Your task to perform on an android device: Open Reddit.com Image 0: 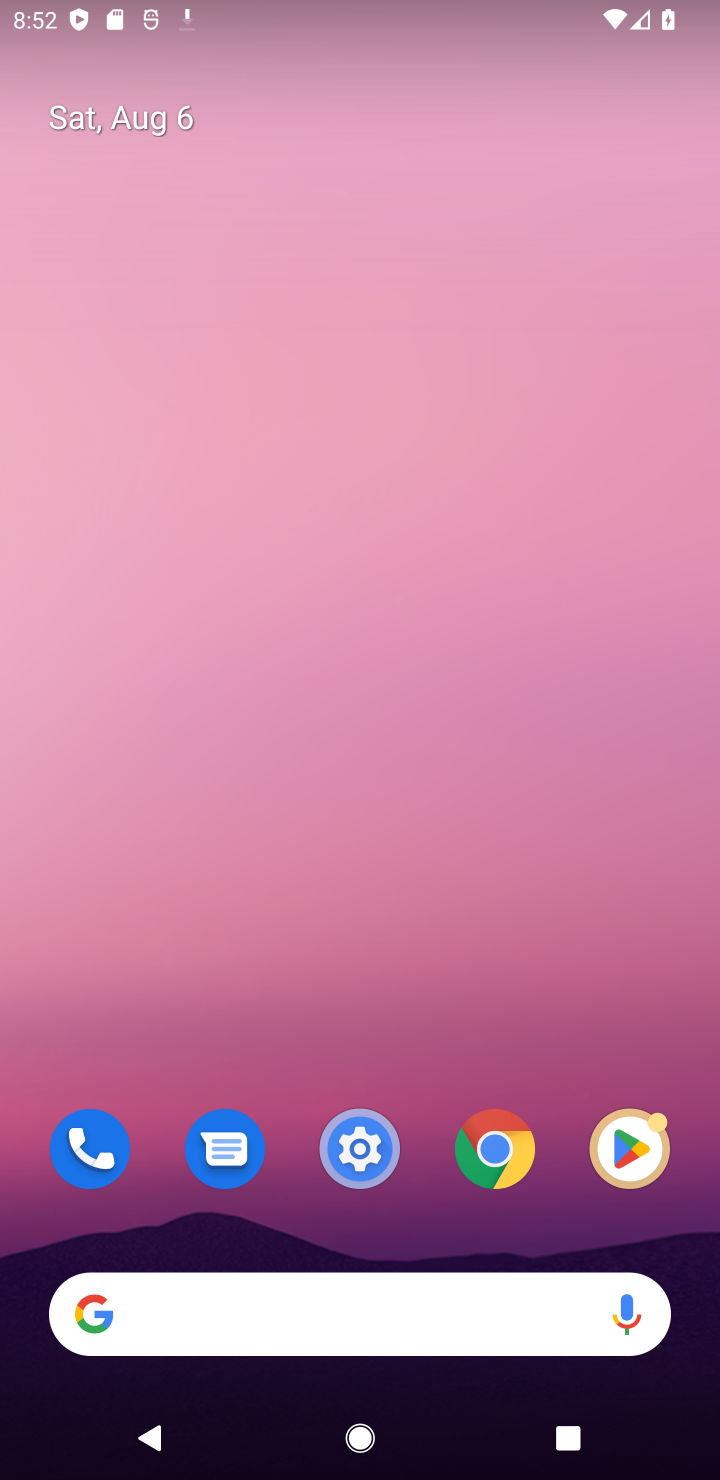
Step 0: click (506, 1164)
Your task to perform on an android device: Open Reddit.com Image 1: 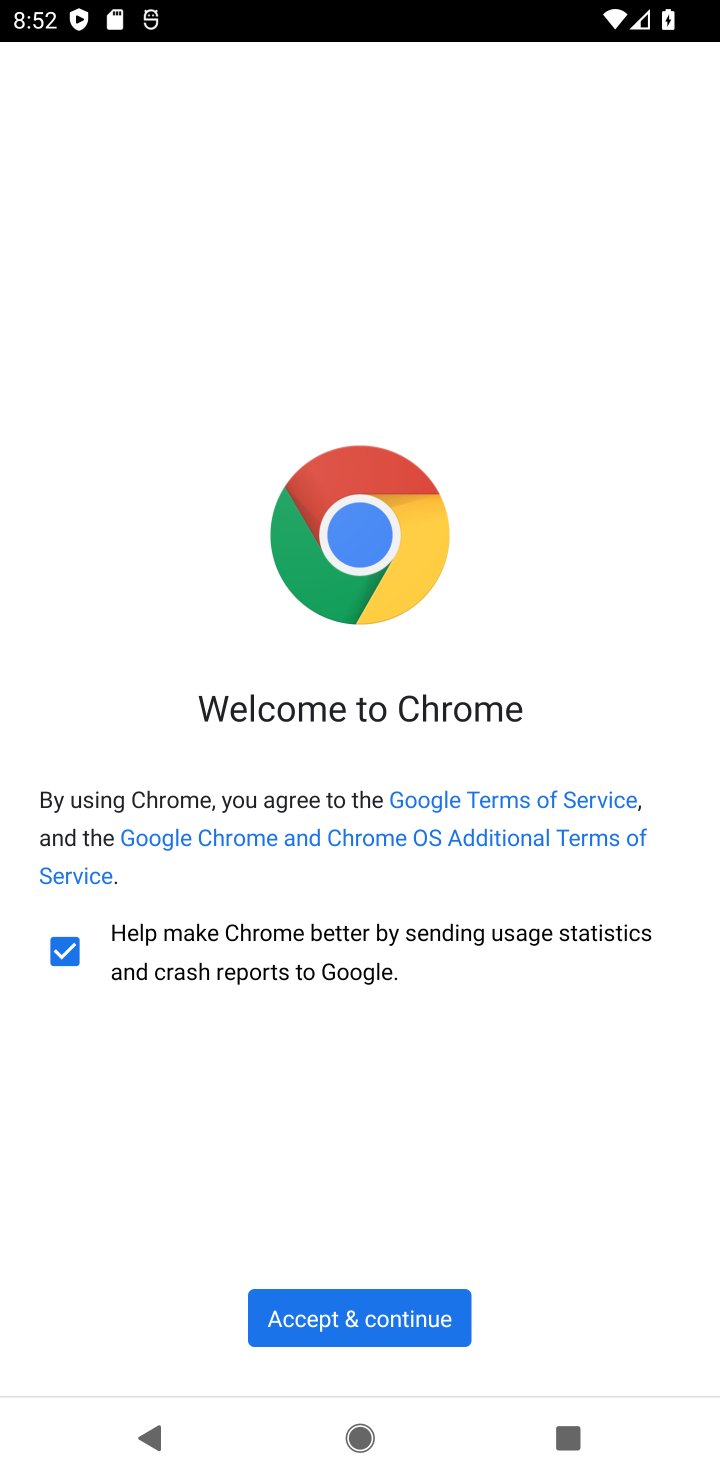
Step 1: click (366, 1329)
Your task to perform on an android device: Open Reddit.com Image 2: 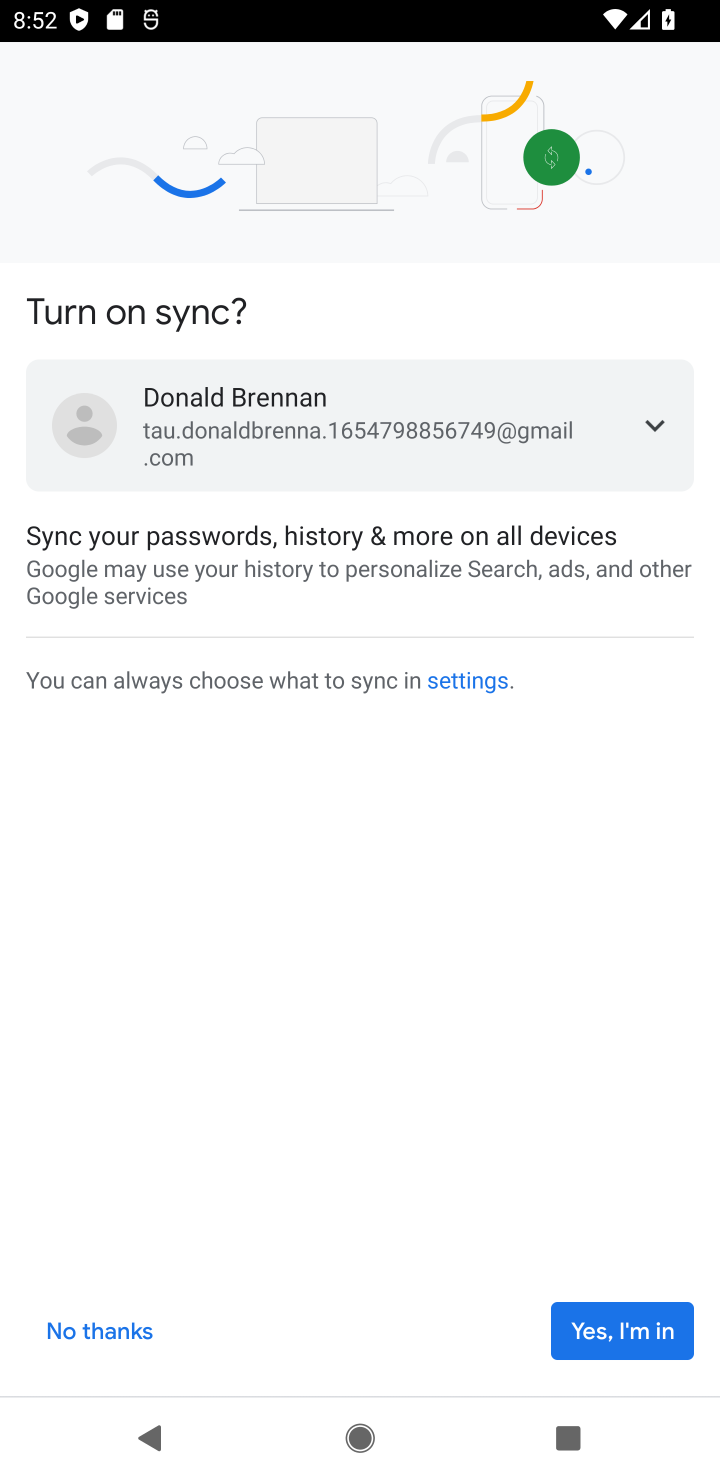
Step 2: click (613, 1319)
Your task to perform on an android device: Open Reddit.com Image 3: 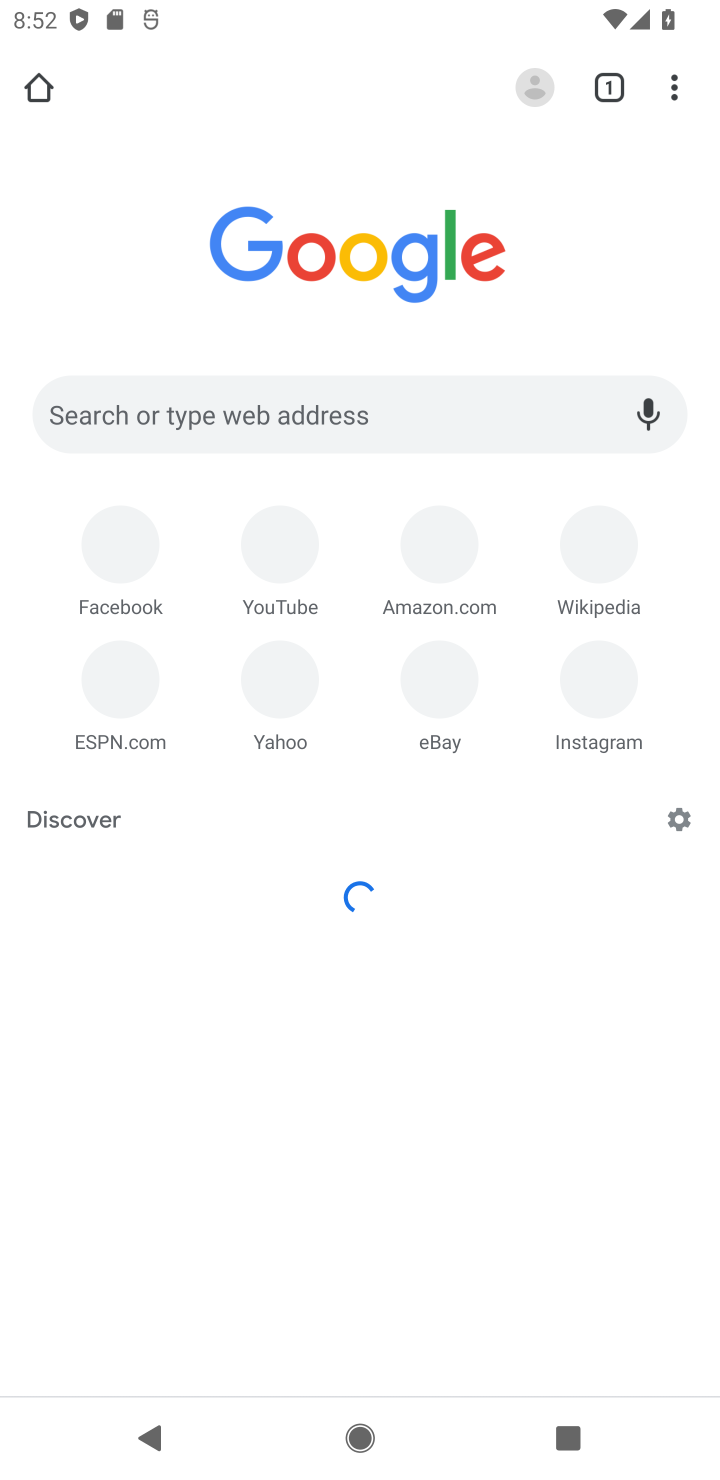
Step 3: click (345, 429)
Your task to perform on an android device: Open Reddit.com Image 4: 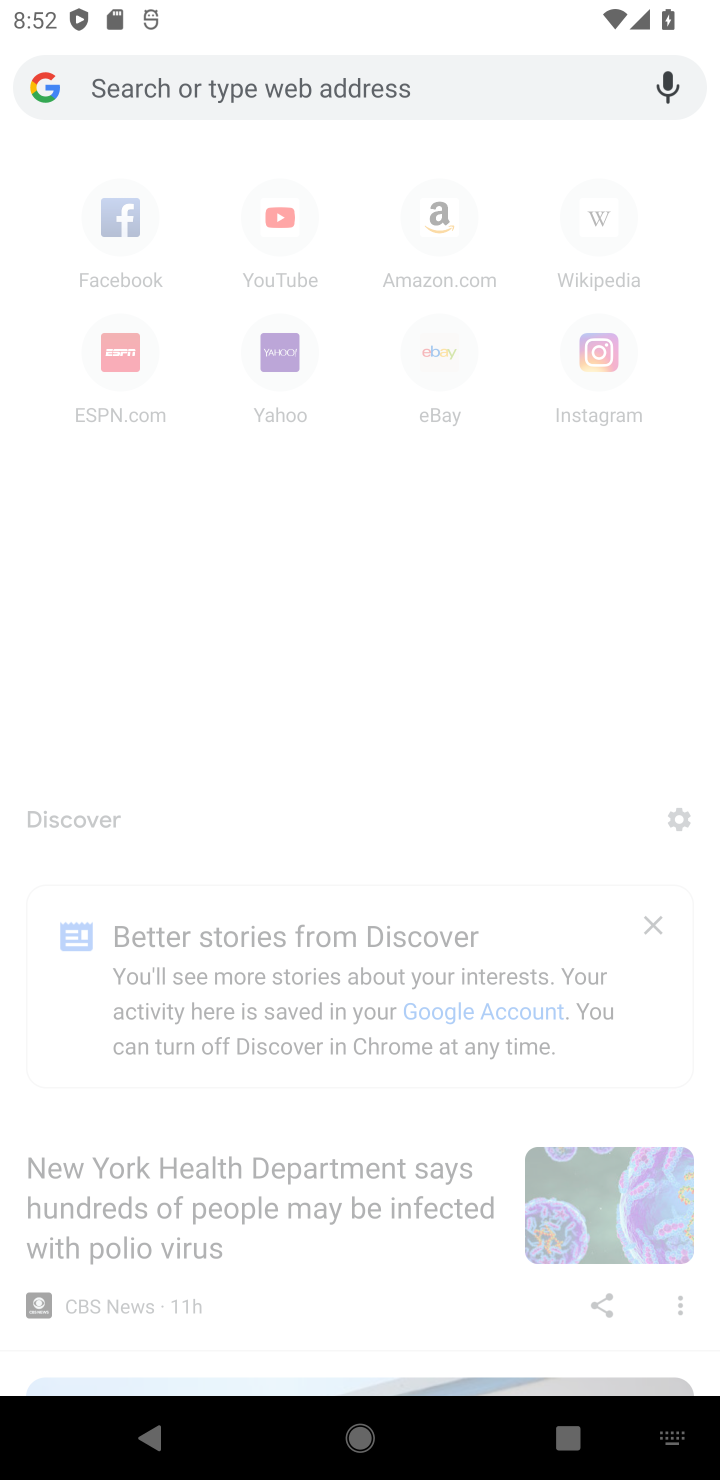
Step 4: type "reddit.com"
Your task to perform on an android device: Open Reddit.com Image 5: 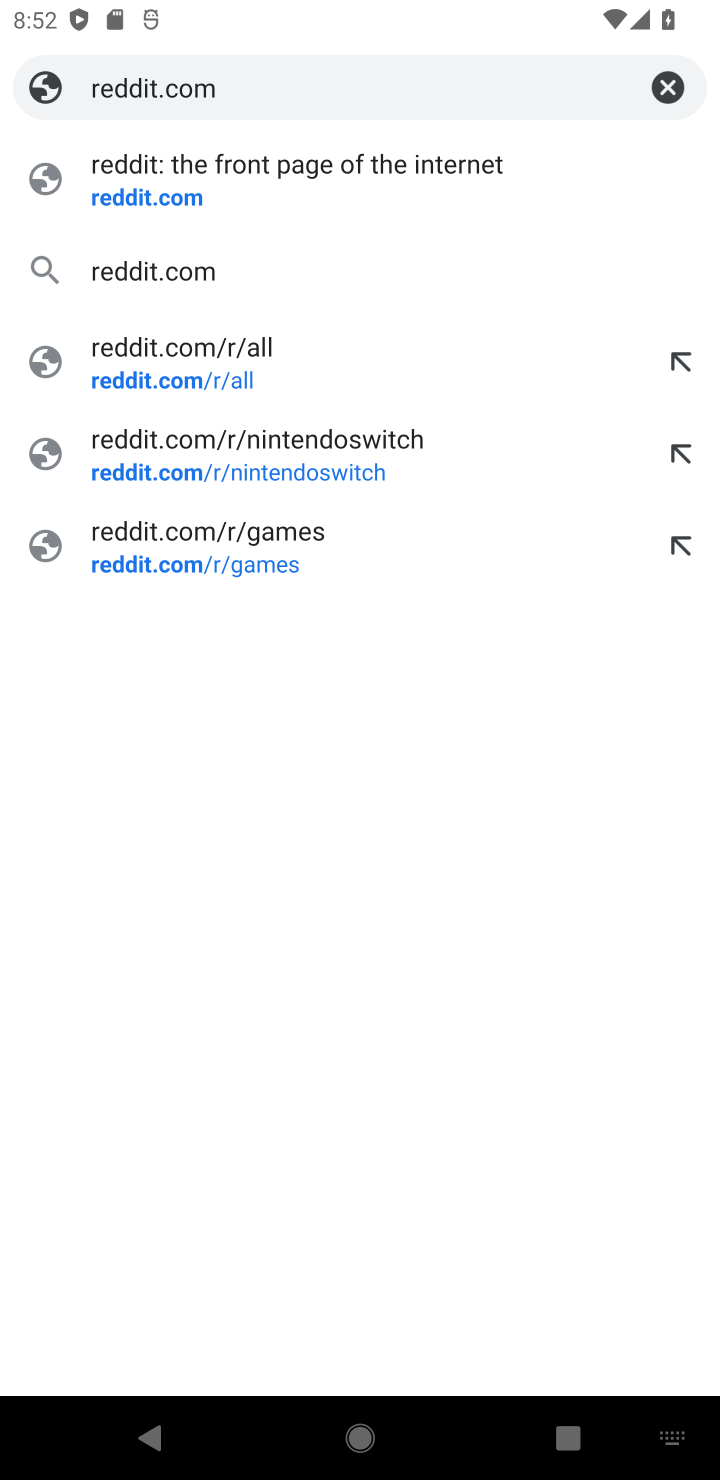
Step 5: click (150, 196)
Your task to perform on an android device: Open Reddit.com Image 6: 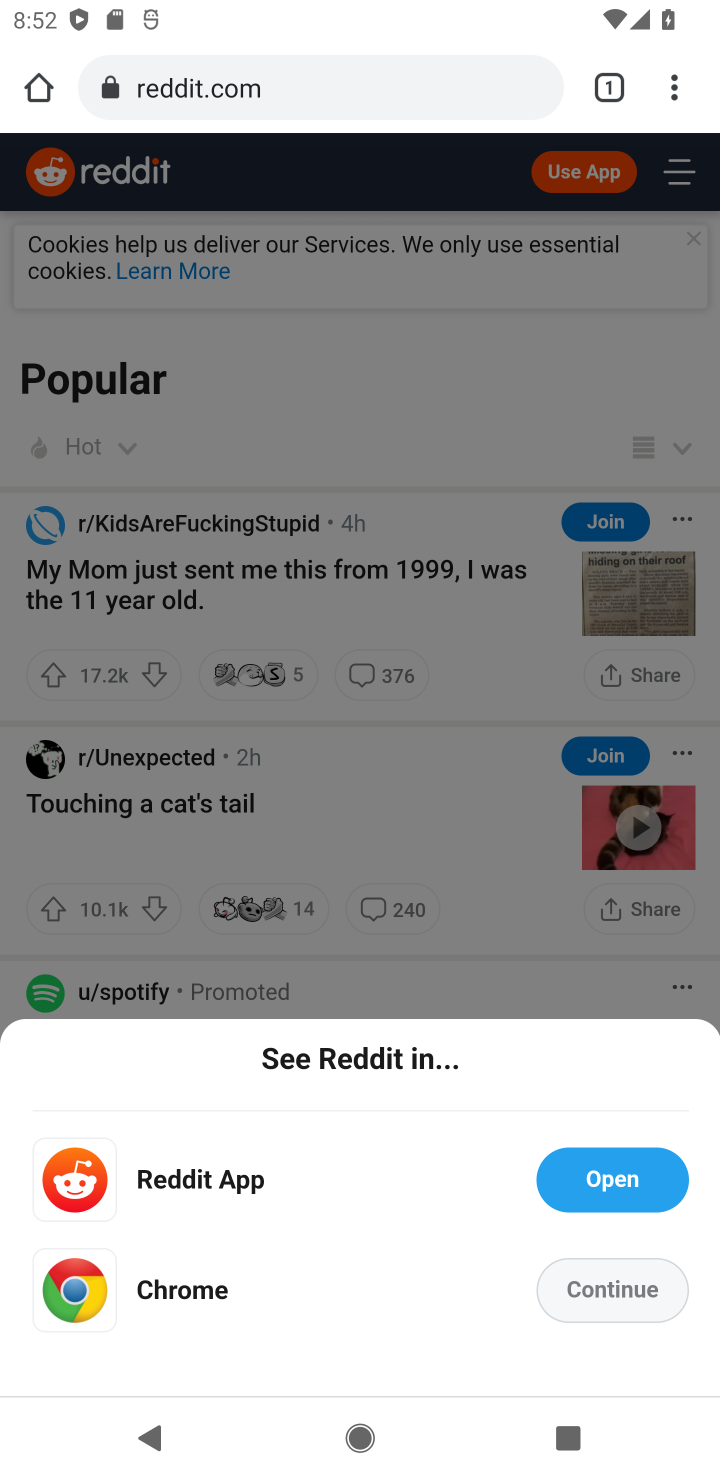
Step 6: task complete